Your task to perform on an android device: set the timer Image 0: 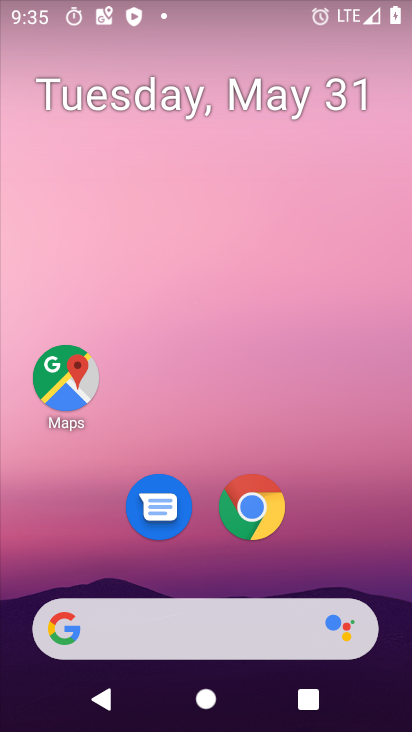
Step 0: drag from (19, 569) to (255, 105)
Your task to perform on an android device: set the timer Image 1: 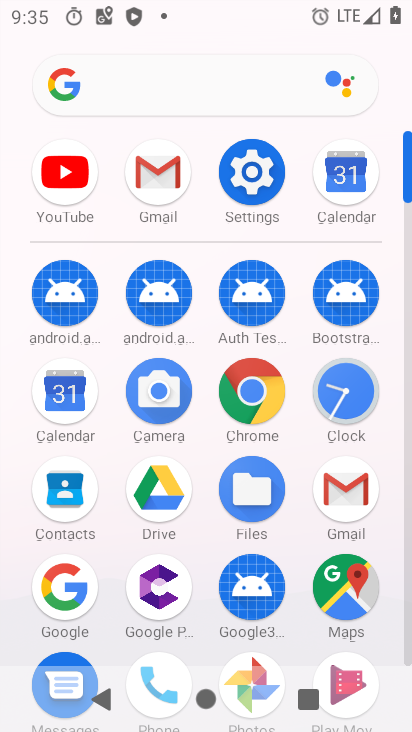
Step 1: click (335, 391)
Your task to perform on an android device: set the timer Image 2: 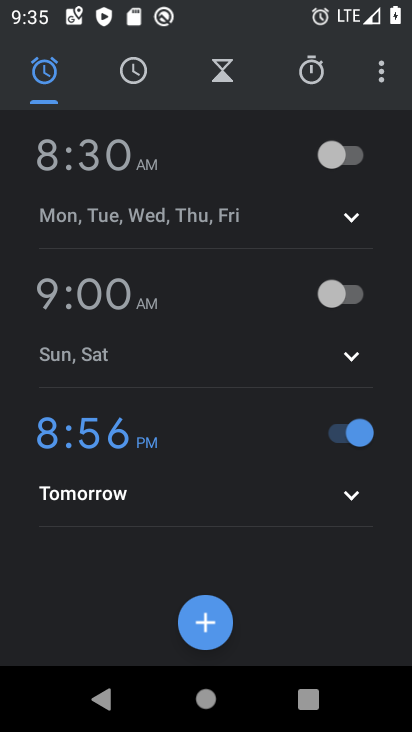
Step 2: click (245, 83)
Your task to perform on an android device: set the timer Image 3: 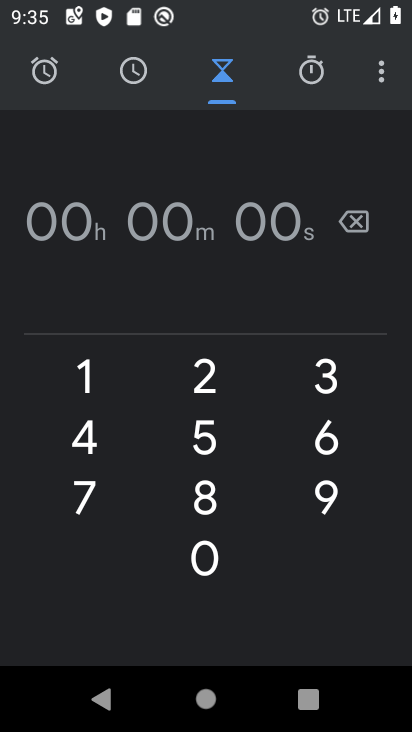
Step 3: click (116, 386)
Your task to perform on an android device: set the timer Image 4: 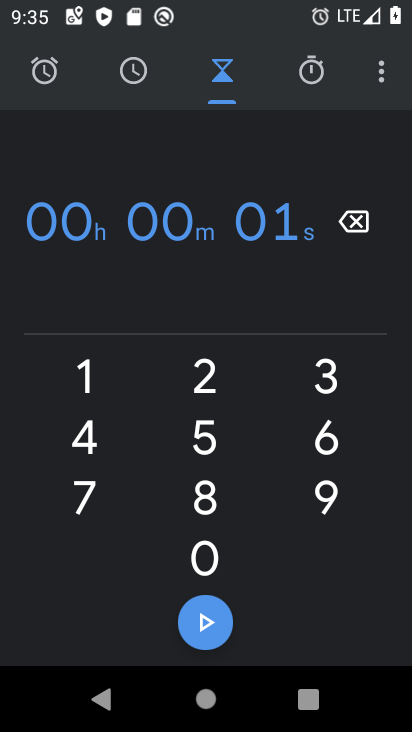
Step 4: click (224, 597)
Your task to perform on an android device: set the timer Image 5: 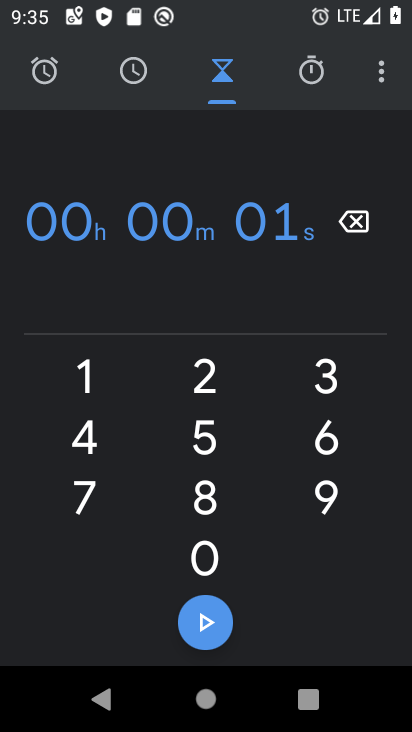
Step 5: click (224, 597)
Your task to perform on an android device: set the timer Image 6: 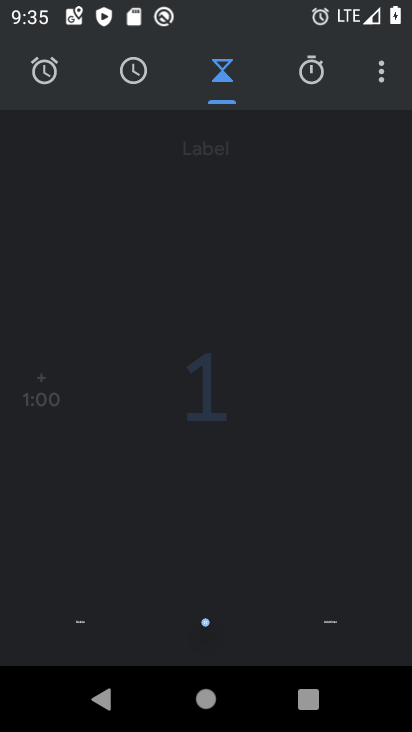
Step 6: click (224, 596)
Your task to perform on an android device: set the timer Image 7: 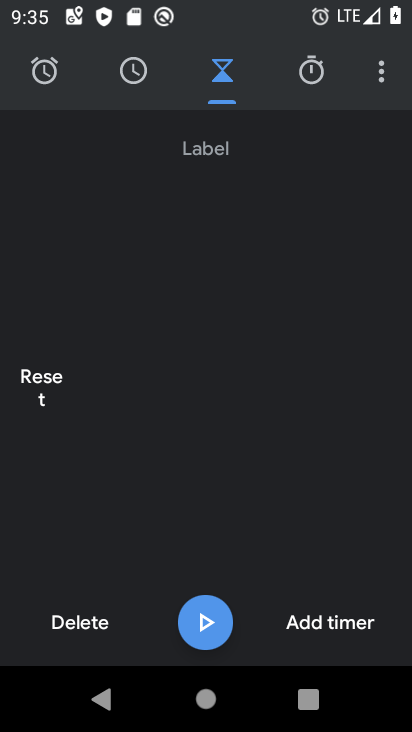
Step 7: click (224, 596)
Your task to perform on an android device: set the timer Image 8: 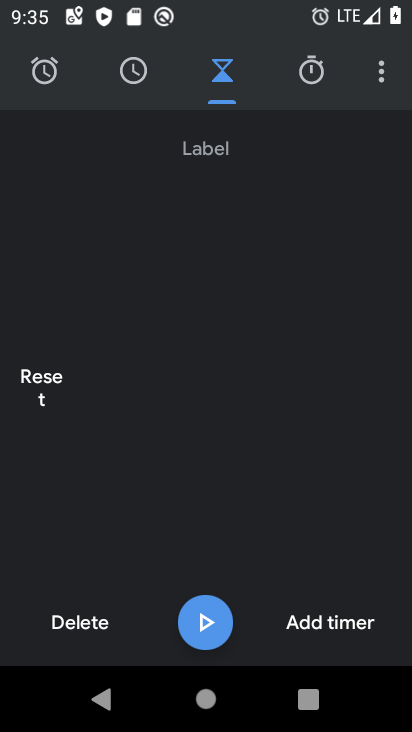
Step 8: task complete